Your task to perform on an android device: see tabs open on other devices in the chrome app Image 0: 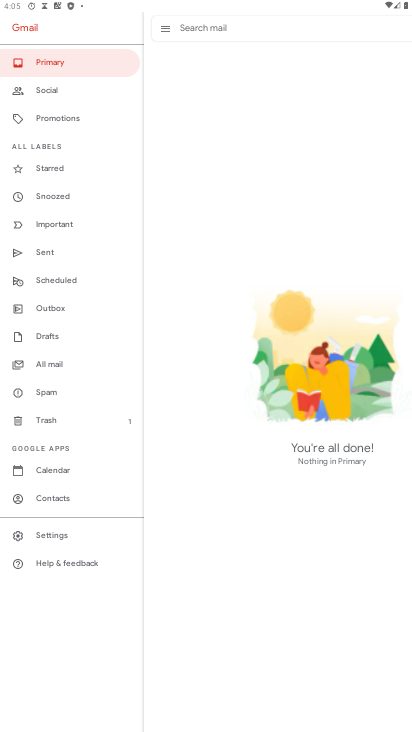
Step 0: press home button
Your task to perform on an android device: see tabs open on other devices in the chrome app Image 1: 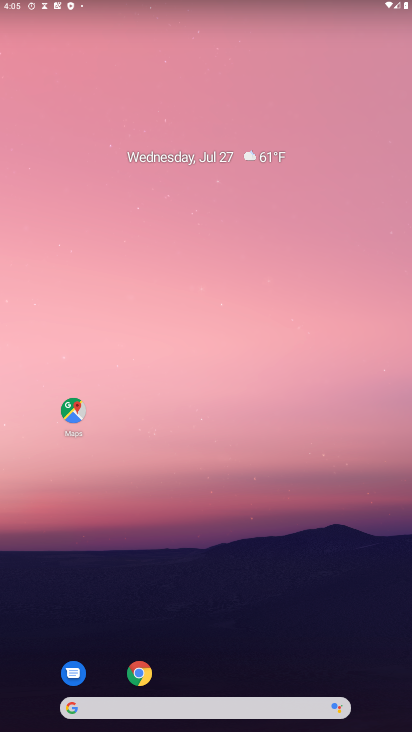
Step 1: click (148, 657)
Your task to perform on an android device: see tabs open on other devices in the chrome app Image 2: 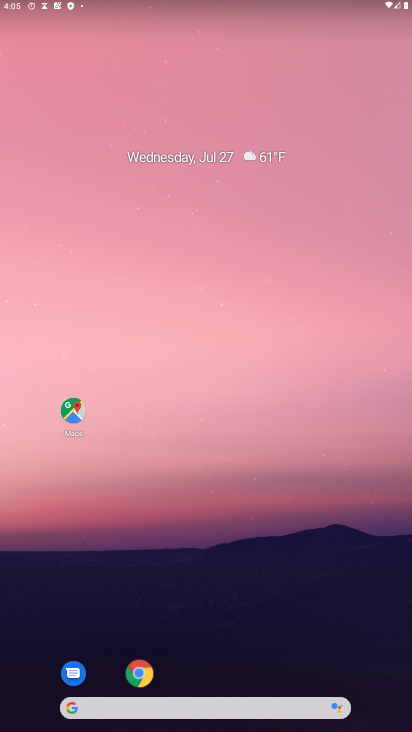
Step 2: click (143, 675)
Your task to perform on an android device: see tabs open on other devices in the chrome app Image 3: 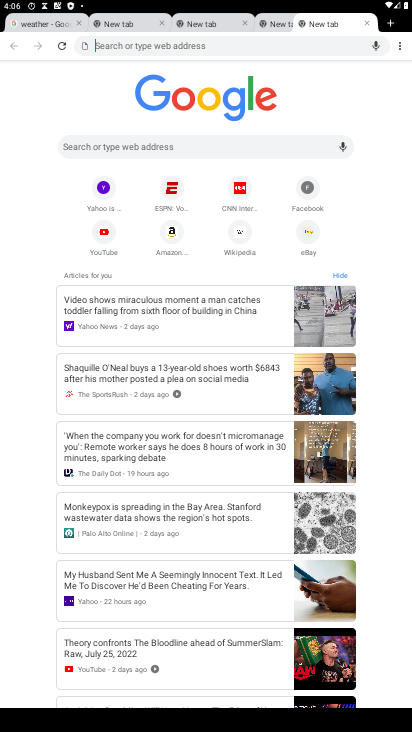
Step 3: task complete